Your task to perform on an android device: Go to network settings Image 0: 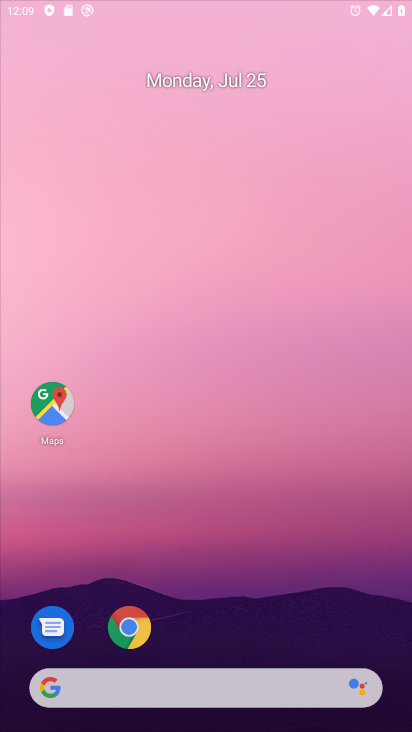
Step 0: drag from (201, 618) to (187, 138)
Your task to perform on an android device: Go to network settings Image 1: 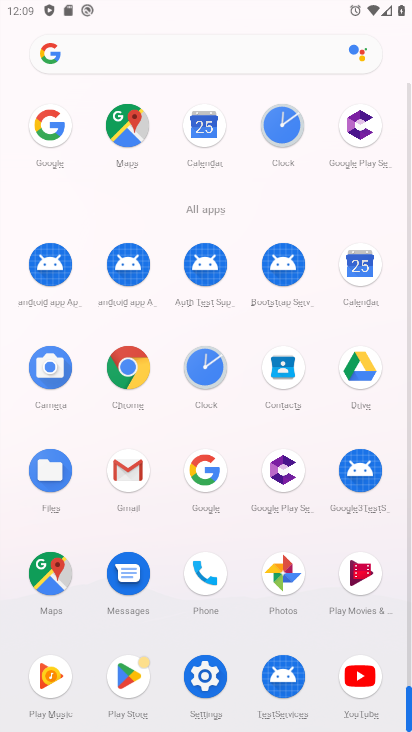
Step 1: click (204, 668)
Your task to perform on an android device: Go to network settings Image 2: 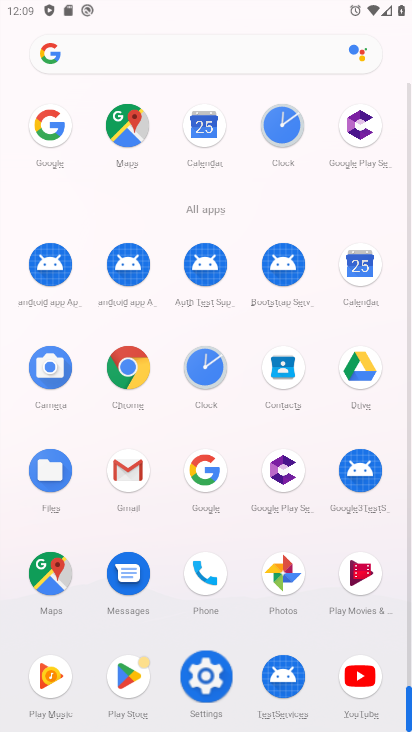
Step 2: click (204, 669)
Your task to perform on an android device: Go to network settings Image 3: 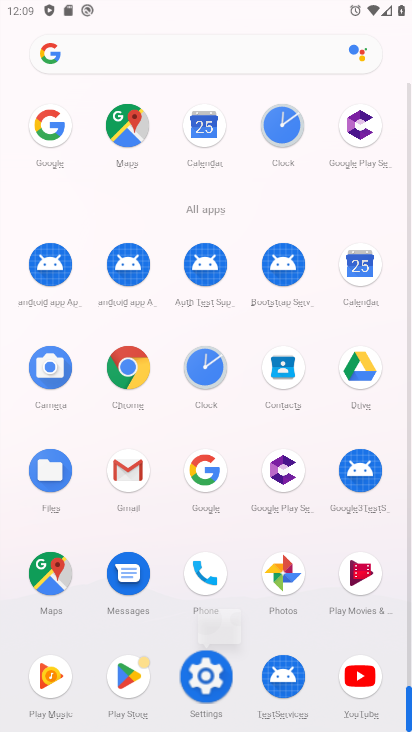
Step 3: click (217, 663)
Your task to perform on an android device: Go to network settings Image 4: 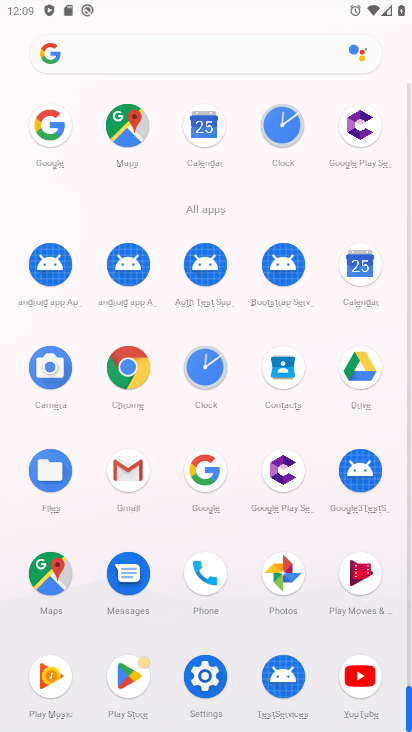
Step 4: click (220, 666)
Your task to perform on an android device: Go to network settings Image 5: 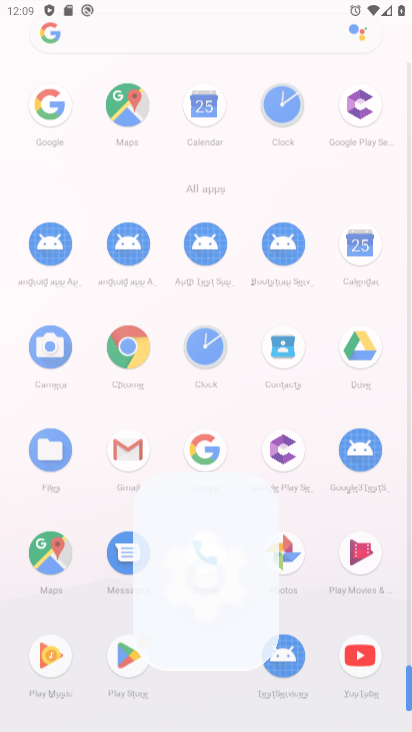
Step 5: click (221, 667)
Your task to perform on an android device: Go to network settings Image 6: 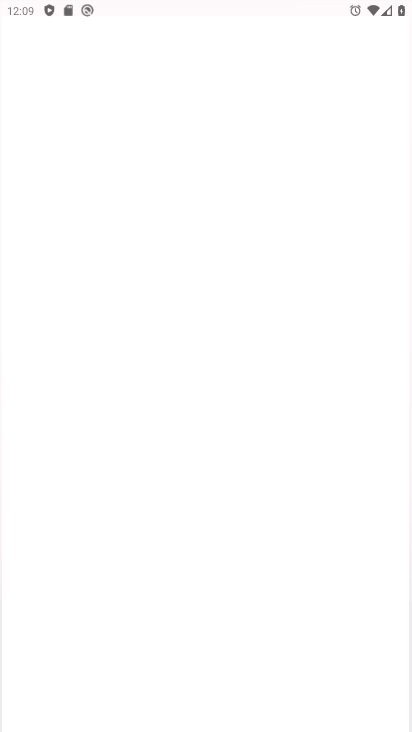
Step 6: click (222, 670)
Your task to perform on an android device: Go to network settings Image 7: 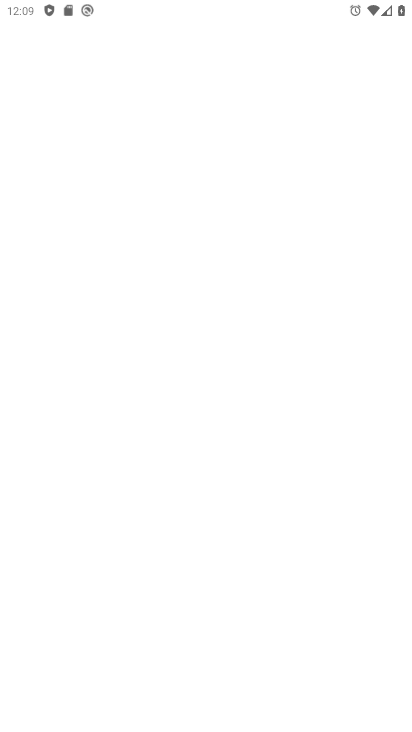
Step 7: click (220, 672)
Your task to perform on an android device: Go to network settings Image 8: 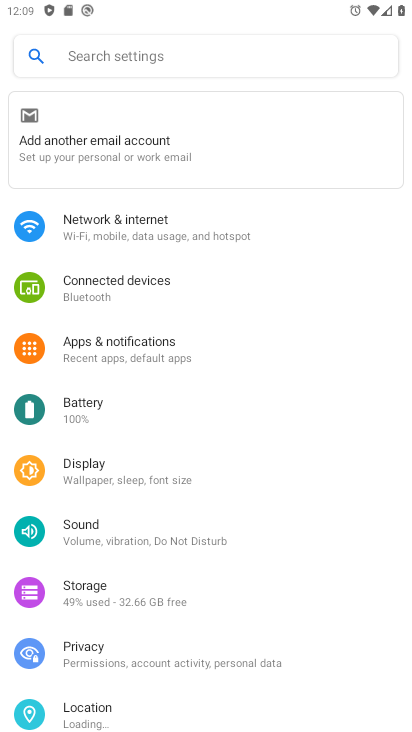
Step 8: drag from (131, 522) to (117, 195)
Your task to perform on an android device: Go to network settings Image 9: 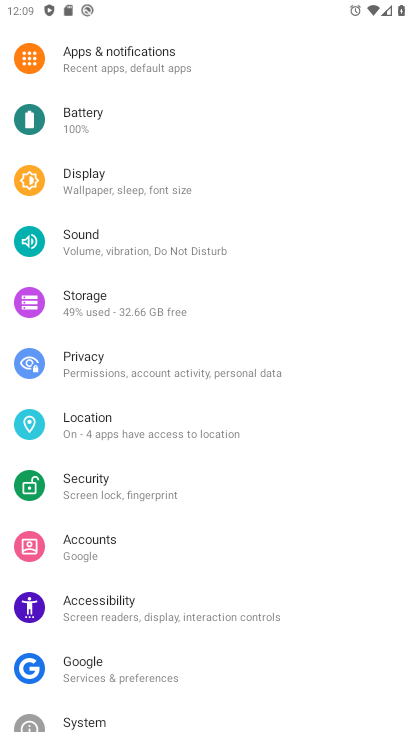
Step 9: drag from (152, 196) to (165, 512)
Your task to perform on an android device: Go to network settings Image 10: 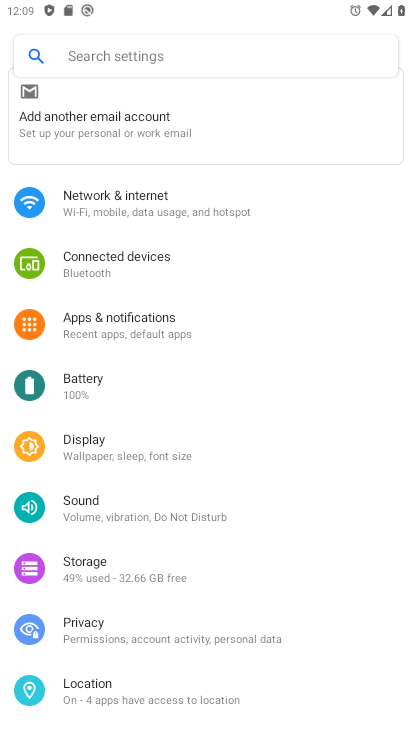
Step 10: drag from (155, 232) to (186, 539)
Your task to perform on an android device: Go to network settings Image 11: 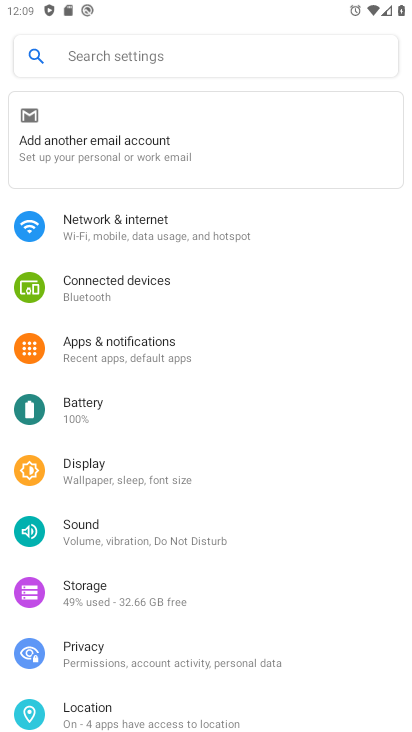
Step 11: click (115, 226)
Your task to perform on an android device: Go to network settings Image 12: 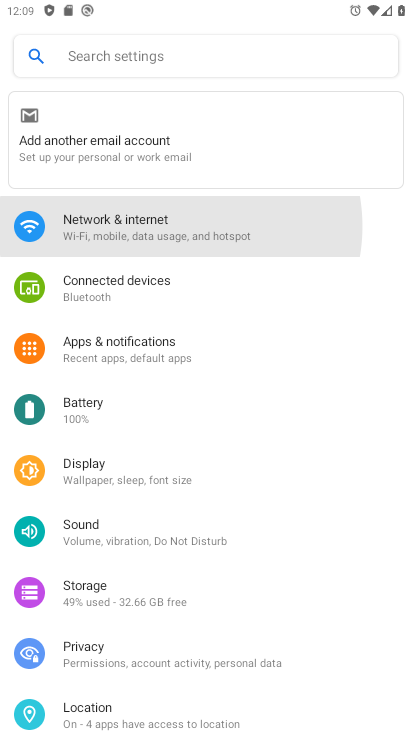
Step 12: click (126, 226)
Your task to perform on an android device: Go to network settings Image 13: 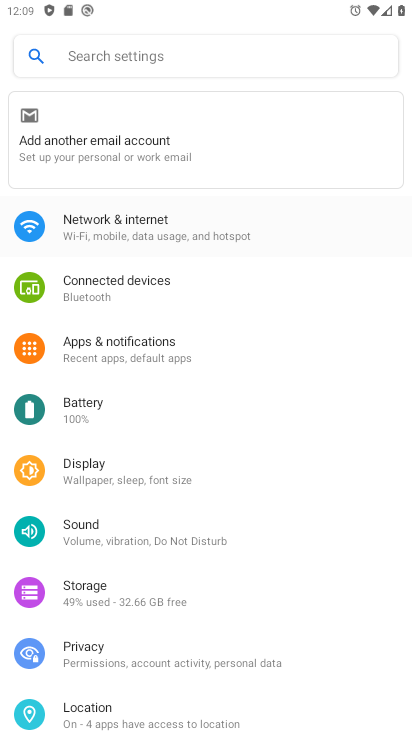
Step 13: click (137, 226)
Your task to perform on an android device: Go to network settings Image 14: 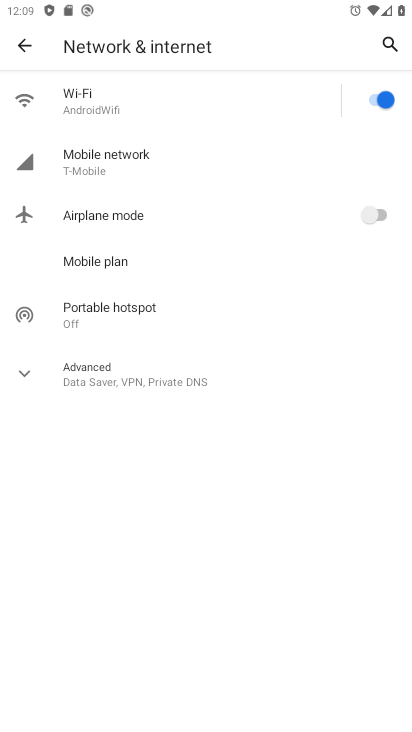
Step 14: task complete